Your task to perform on an android device: Open Google Chrome and open the bookmarks view Image 0: 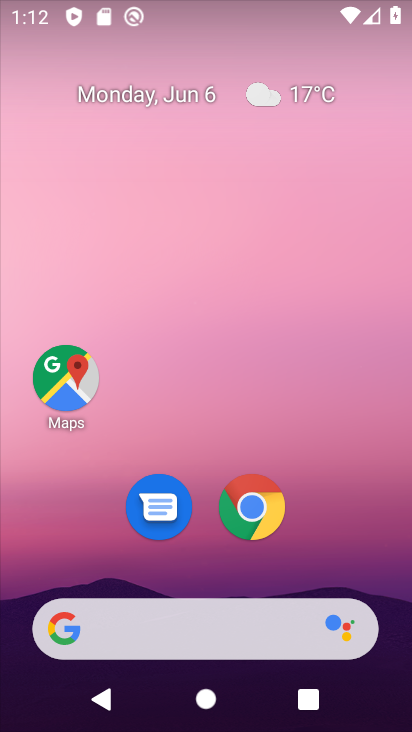
Step 0: drag from (262, 597) to (164, 113)
Your task to perform on an android device: Open Google Chrome and open the bookmarks view Image 1: 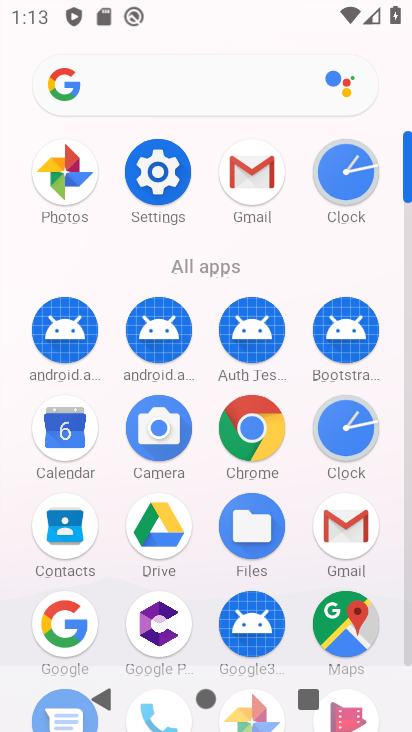
Step 1: click (248, 432)
Your task to perform on an android device: Open Google Chrome and open the bookmarks view Image 2: 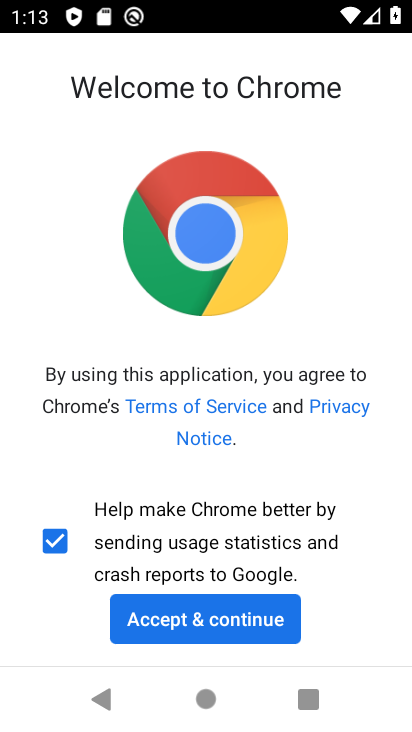
Step 2: click (247, 615)
Your task to perform on an android device: Open Google Chrome and open the bookmarks view Image 3: 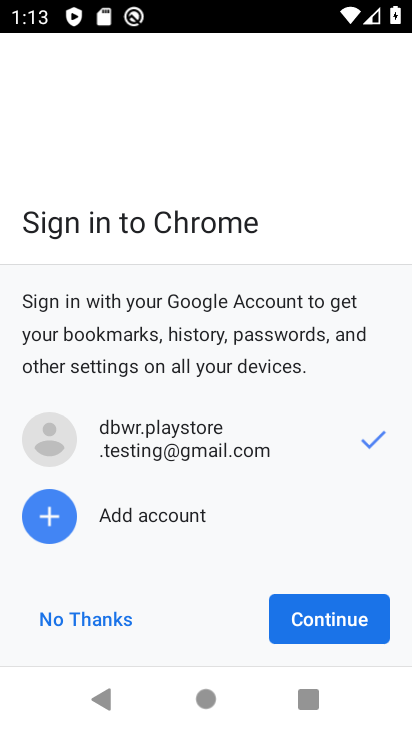
Step 3: click (306, 614)
Your task to perform on an android device: Open Google Chrome and open the bookmarks view Image 4: 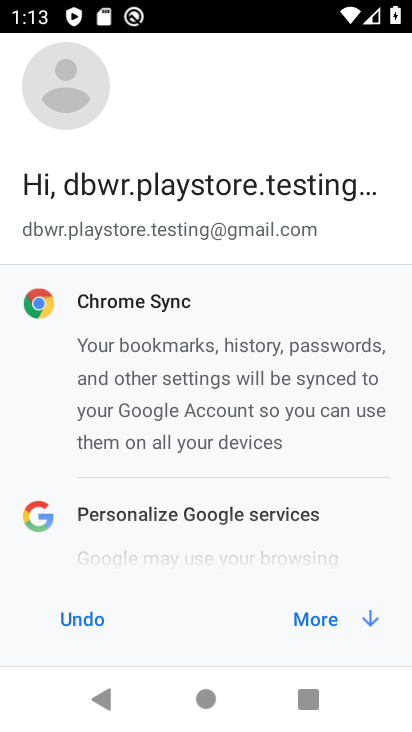
Step 4: click (380, 614)
Your task to perform on an android device: Open Google Chrome and open the bookmarks view Image 5: 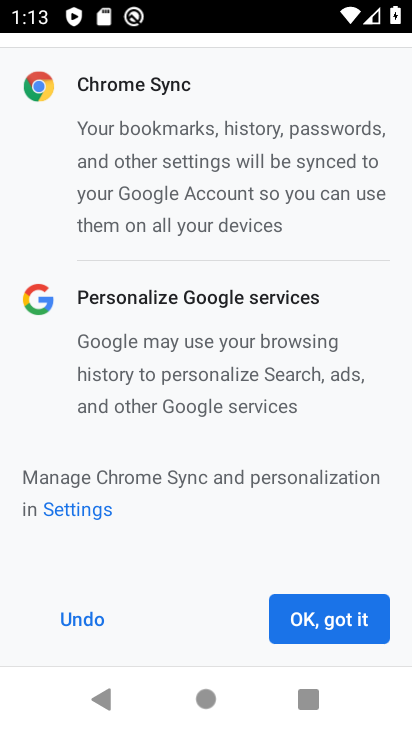
Step 5: click (354, 616)
Your task to perform on an android device: Open Google Chrome and open the bookmarks view Image 6: 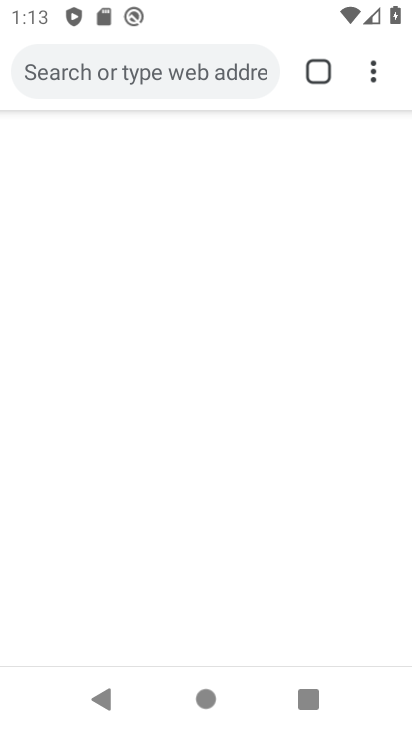
Step 6: click (365, 76)
Your task to perform on an android device: Open Google Chrome and open the bookmarks view Image 7: 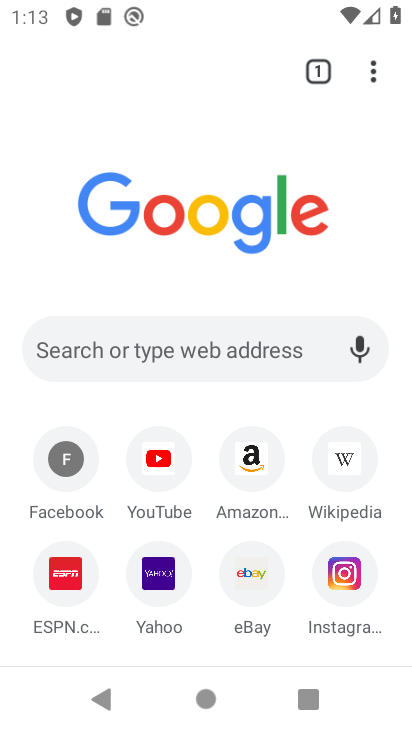
Step 7: click (372, 87)
Your task to perform on an android device: Open Google Chrome and open the bookmarks view Image 8: 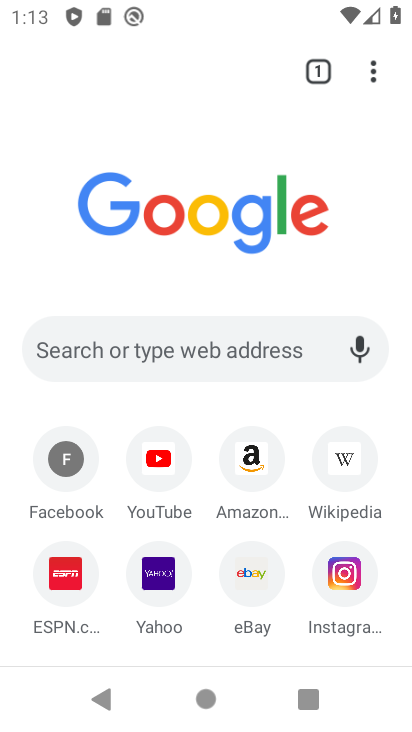
Step 8: click (357, 77)
Your task to perform on an android device: Open Google Chrome and open the bookmarks view Image 9: 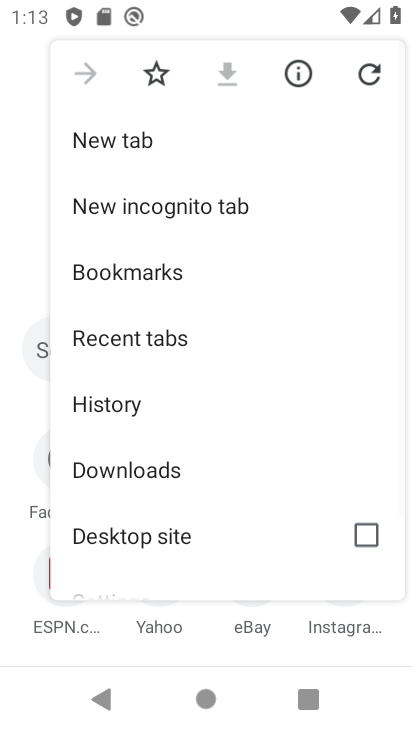
Step 9: drag from (173, 516) to (182, 421)
Your task to perform on an android device: Open Google Chrome and open the bookmarks view Image 10: 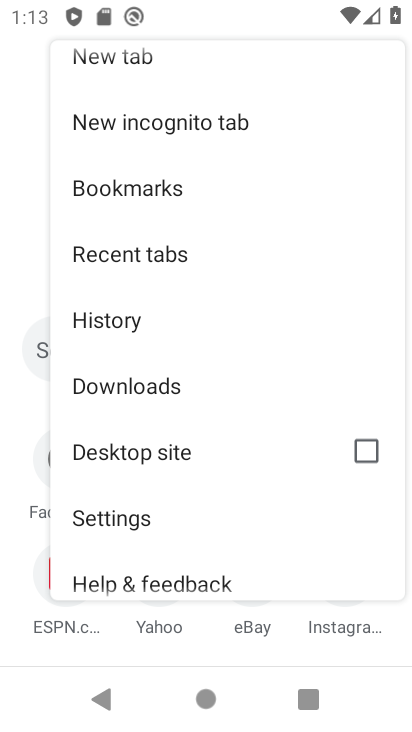
Step 10: click (115, 192)
Your task to perform on an android device: Open Google Chrome and open the bookmarks view Image 11: 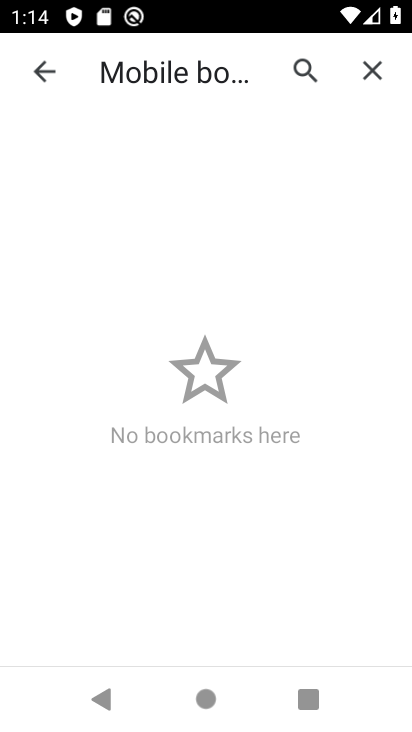
Step 11: task complete